Your task to perform on an android device: What's on my calendar today? Image 0: 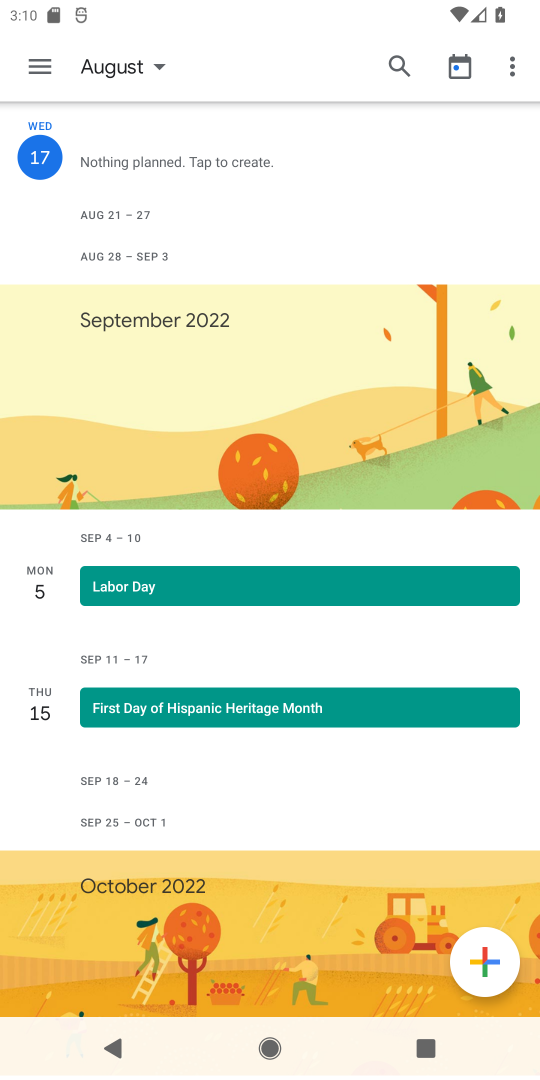
Step 0: press home button
Your task to perform on an android device: What's on my calendar today? Image 1: 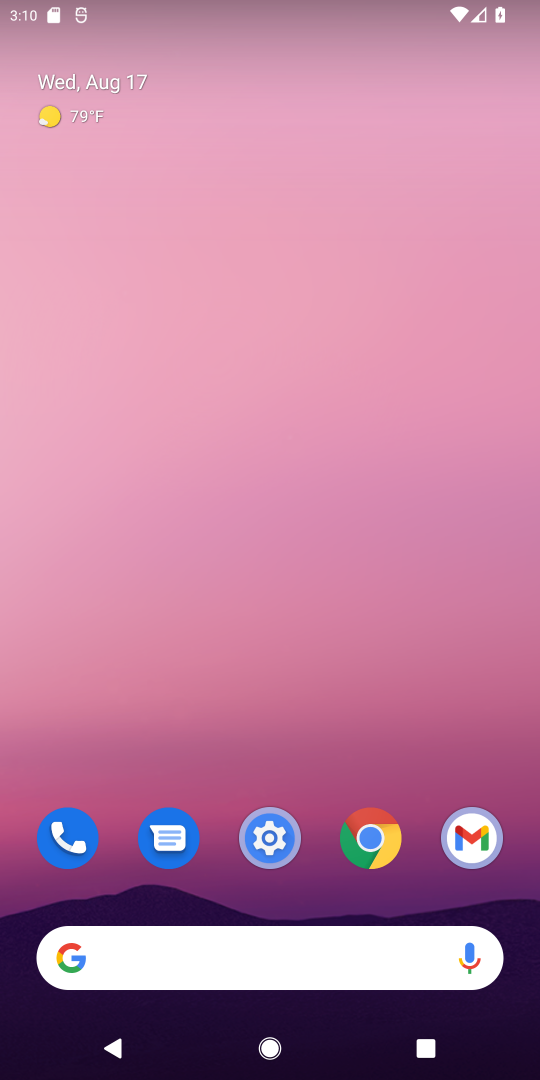
Step 1: drag from (284, 778) to (274, 294)
Your task to perform on an android device: What's on my calendar today? Image 2: 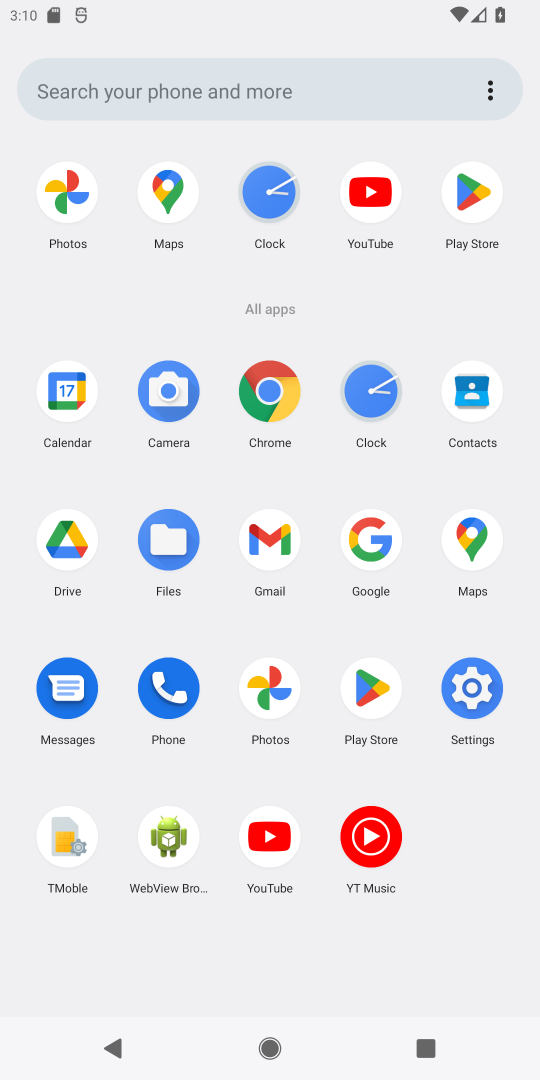
Step 2: click (72, 401)
Your task to perform on an android device: What's on my calendar today? Image 3: 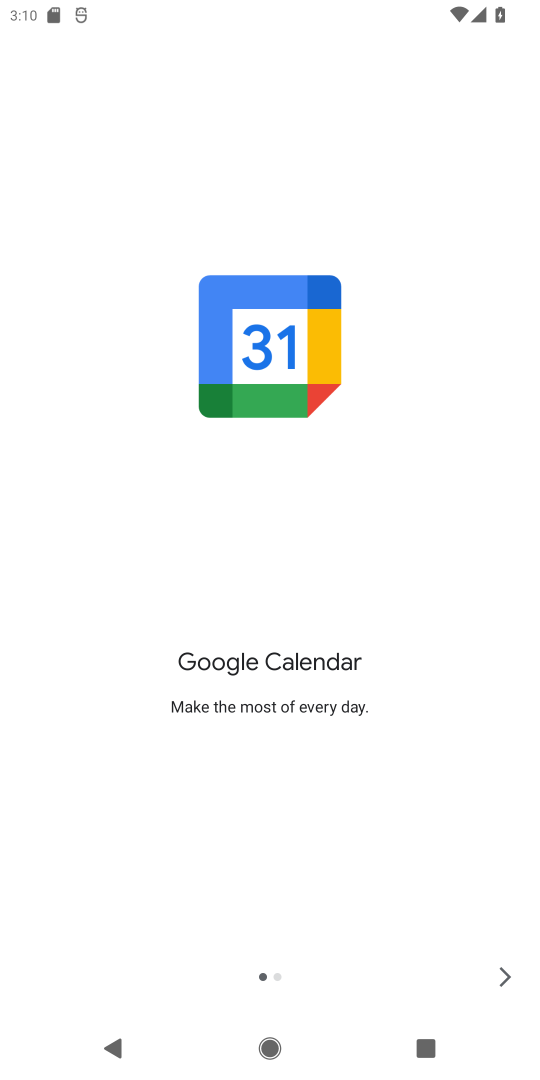
Step 3: click (489, 979)
Your task to perform on an android device: What's on my calendar today? Image 4: 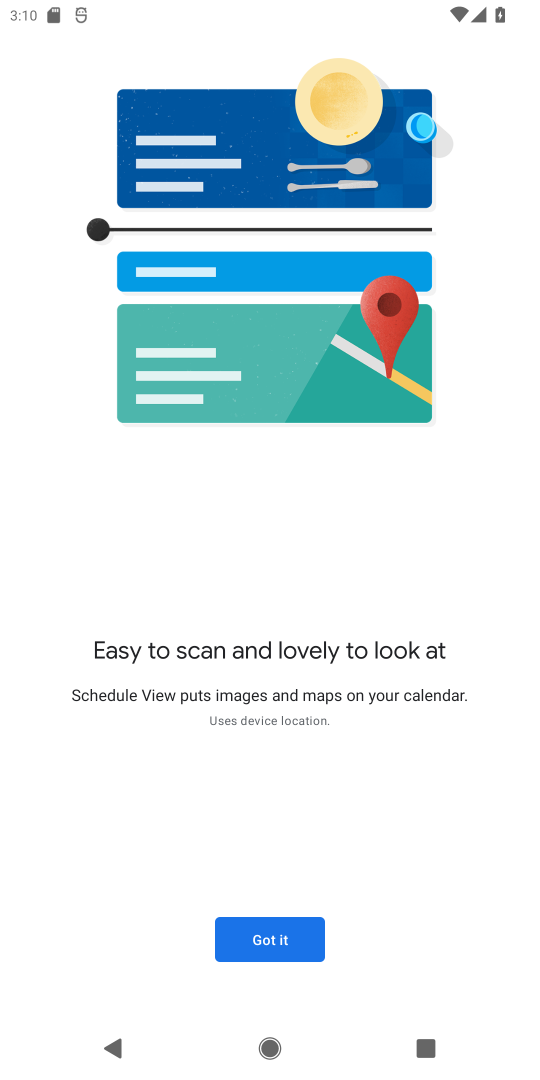
Step 4: click (488, 978)
Your task to perform on an android device: What's on my calendar today? Image 5: 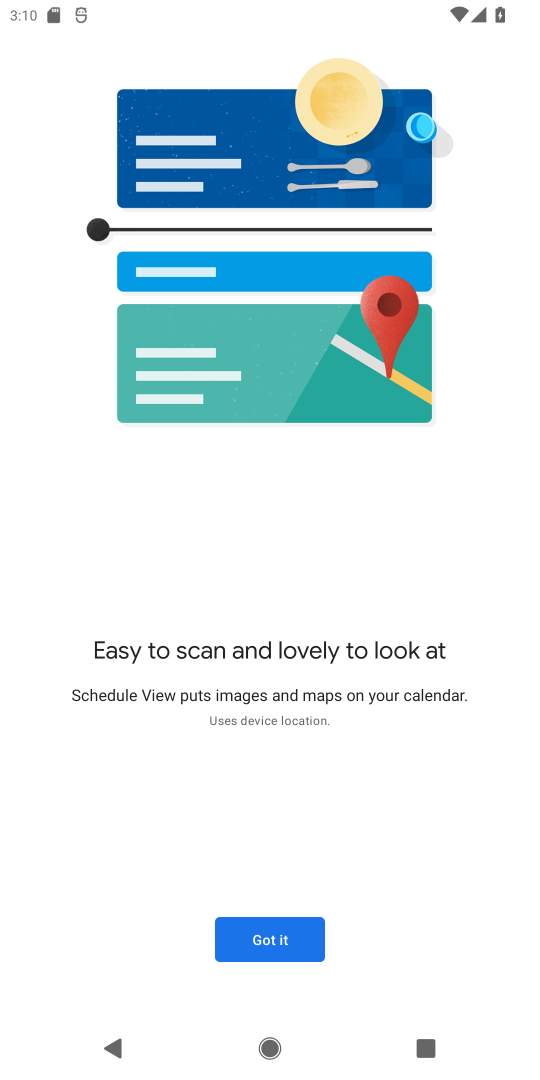
Step 5: click (248, 943)
Your task to perform on an android device: What's on my calendar today? Image 6: 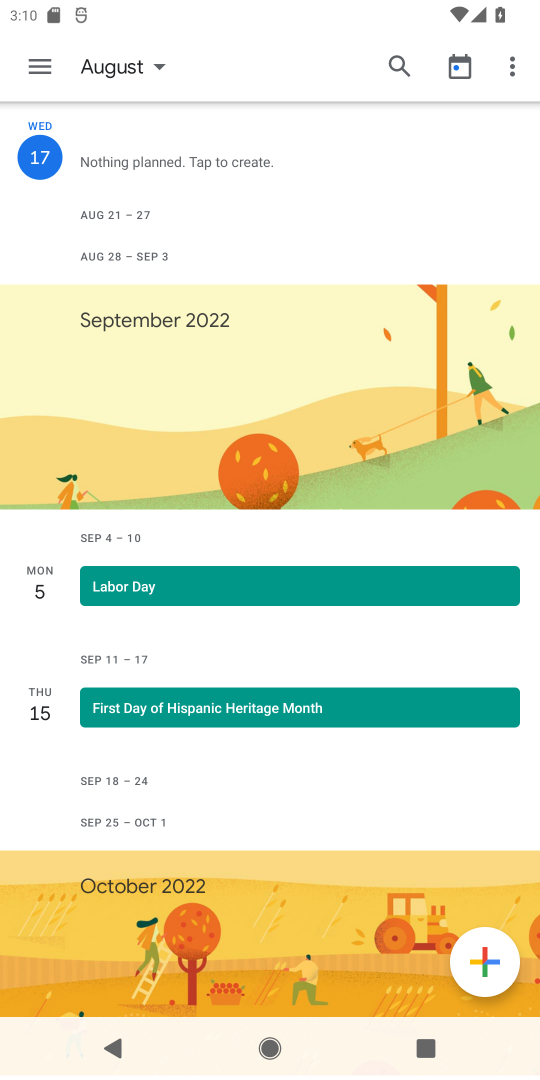
Step 6: task complete